Your task to perform on an android device: check data usage Image 0: 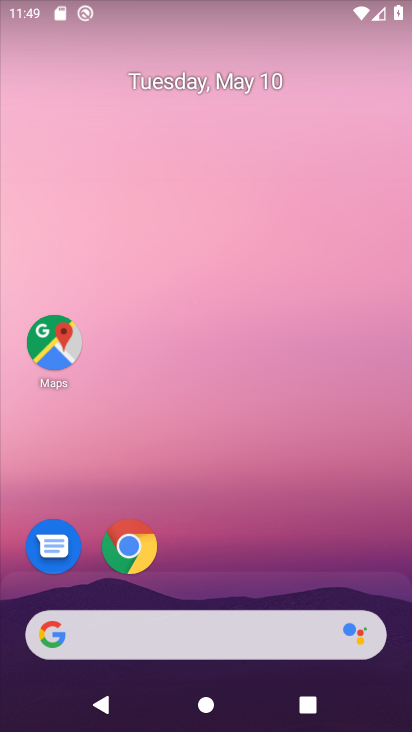
Step 0: drag from (243, 532) to (245, 245)
Your task to perform on an android device: check data usage Image 1: 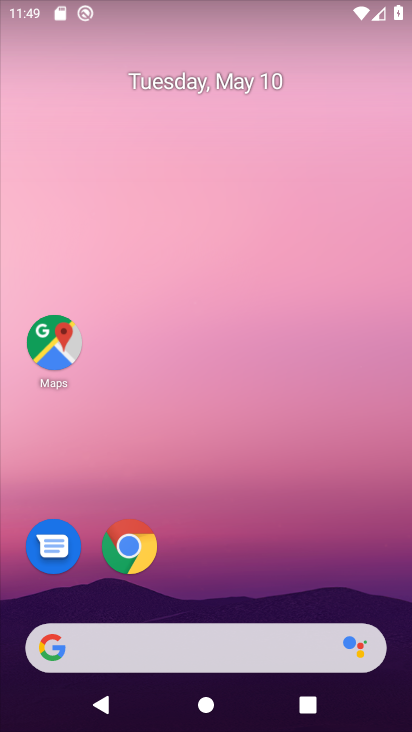
Step 1: click (136, 538)
Your task to perform on an android device: check data usage Image 2: 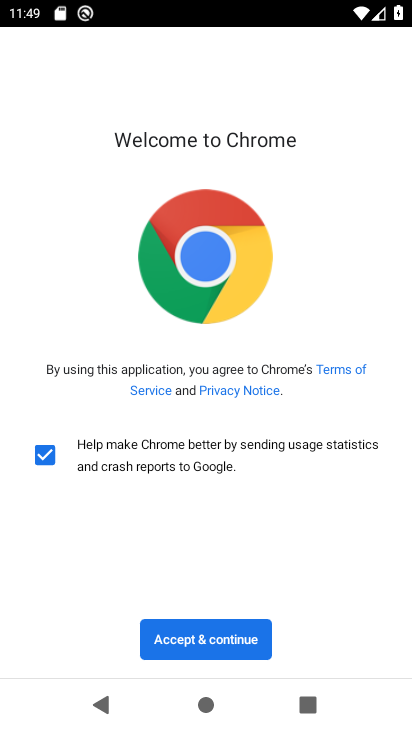
Step 2: press home button
Your task to perform on an android device: check data usage Image 3: 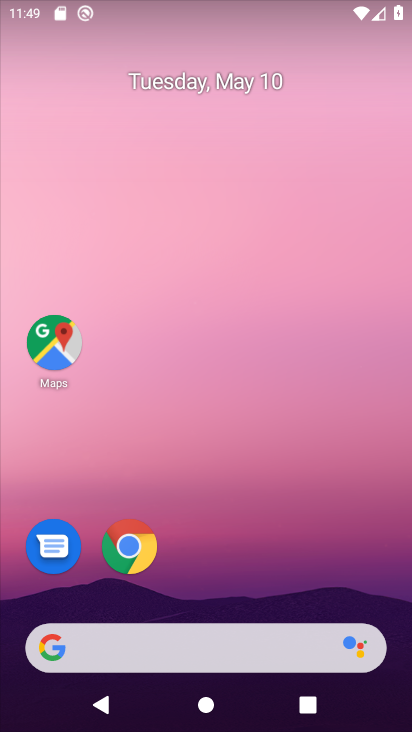
Step 3: drag from (214, 558) to (200, 218)
Your task to perform on an android device: check data usage Image 4: 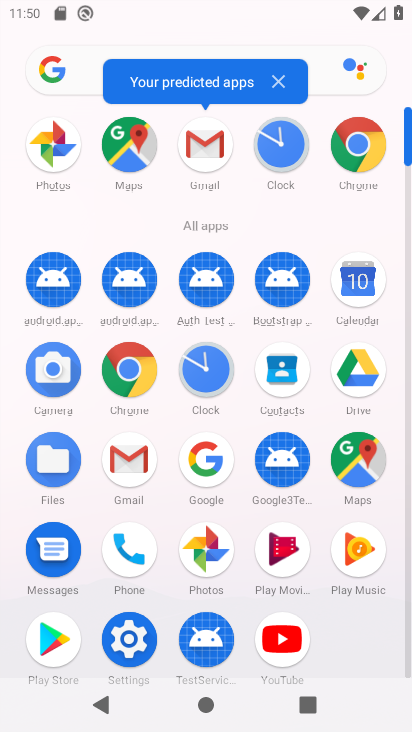
Step 4: click (127, 629)
Your task to perform on an android device: check data usage Image 5: 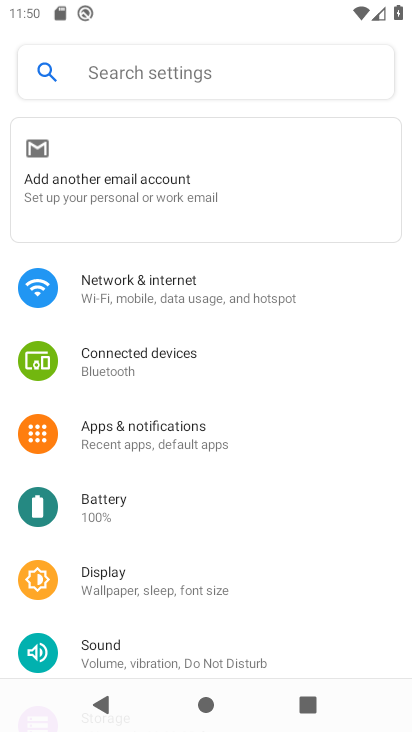
Step 5: click (142, 289)
Your task to perform on an android device: check data usage Image 6: 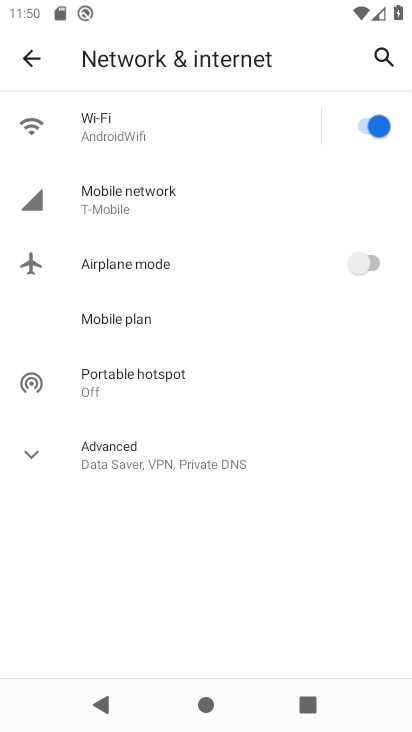
Step 6: click (159, 192)
Your task to perform on an android device: check data usage Image 7: 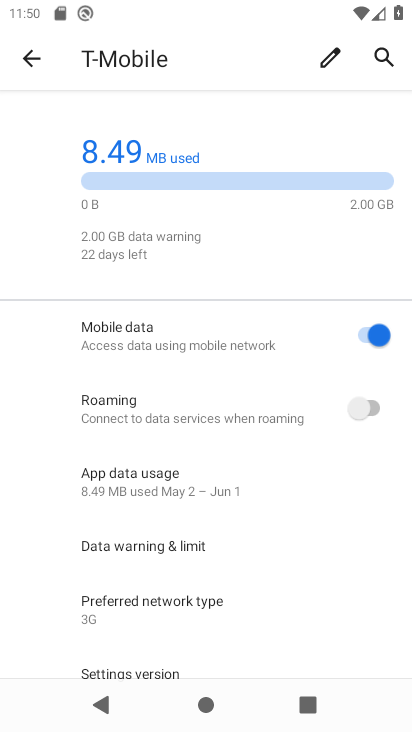
Step 7: task complete